Your task to perform on an android device: Open Chrome and go to the settings page Image 0: 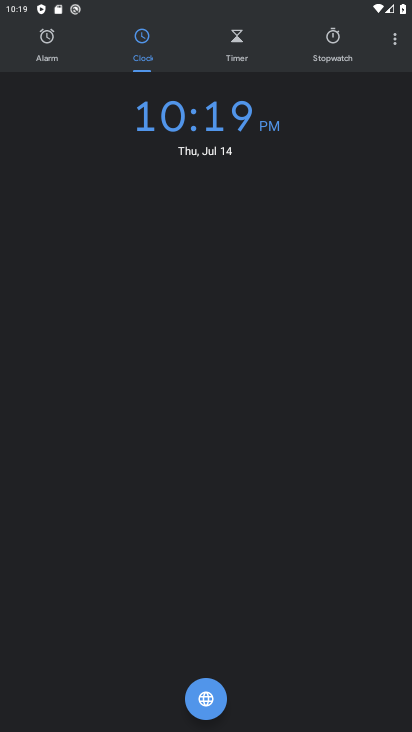
Step 0: press home button
Your task to perform on an android device: Open Chrome and go to the settings page Image 1: 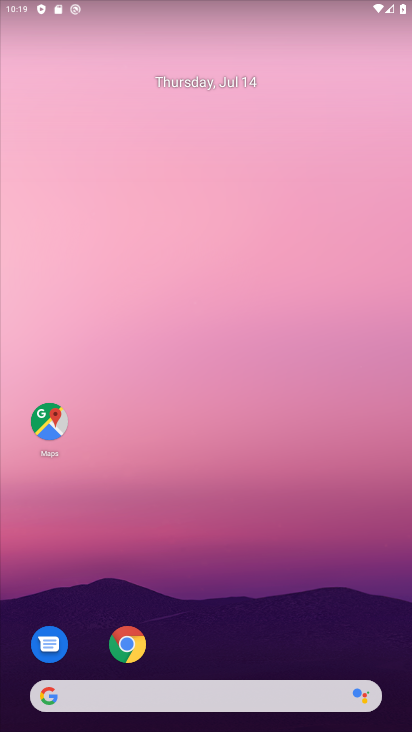
Step 1: click (135, 642)
Your task to perform on an android device: Open Chrome and go to the settings page Image 2: 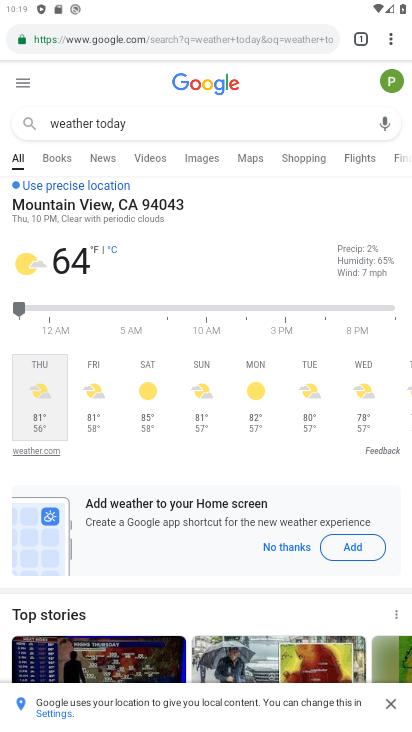
Step 2: task complete